Your task to perform on an android device: What's on my calendar tomorrow? Image 0: 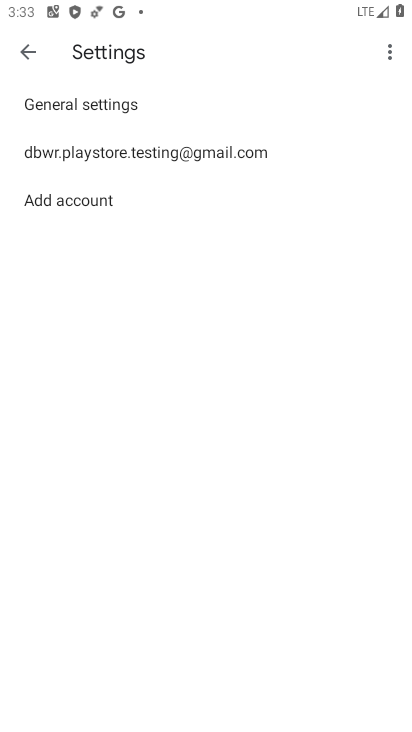
Step 0: press home button
Your task to perform on an android device: What's on my calendar tomorrow? Image 1: 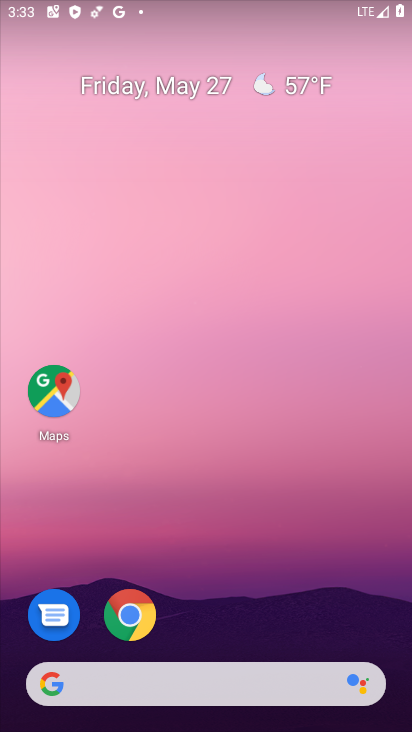
Step 1: drag from (217, 641) to (226, 395)
Your task to perform on an android device: What's on my calendar tomorrow? Image 2: 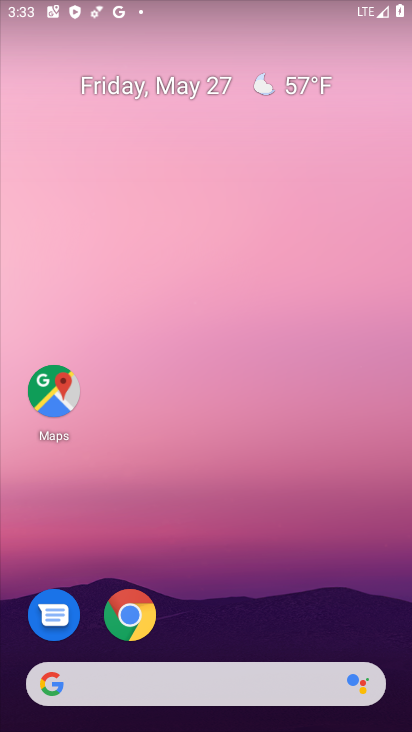
Step 2: drag from (157, 630) to (180, 507)
Your task to perform on an android device: What's on my calendar tomorrow? Image 3: 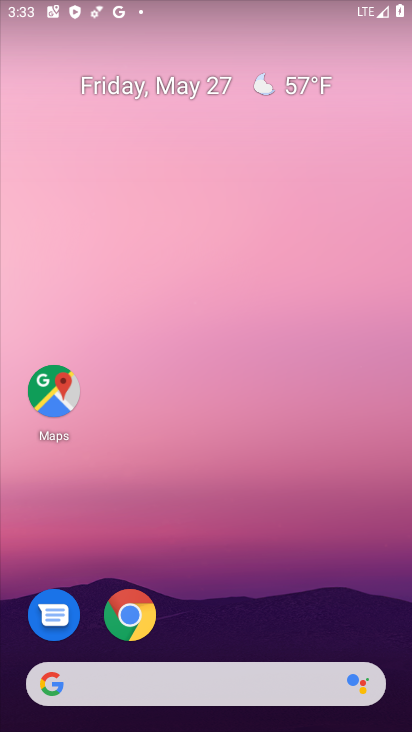
Step 3: drag from (196, 653) to (204, 145)
Your task to perform on an android device: What's on my calendar tomorrow? Image 4: 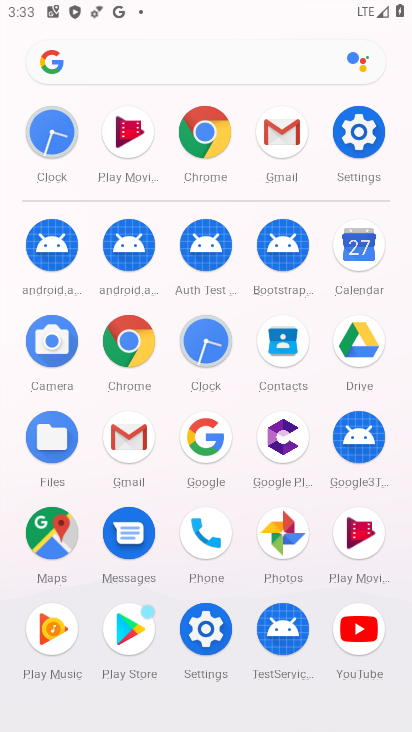
Step 4: click (348, 255)
Your task to perform on an android device: What's on my calendar tomorrow? Image 5: 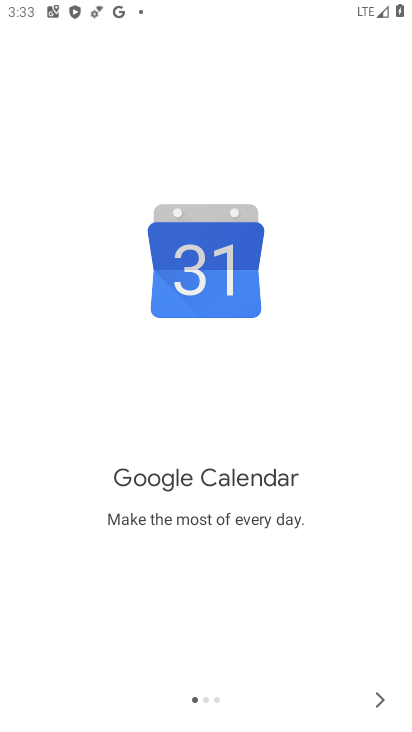
Step 5: click (385, 698)
Your task to perform on an android device: What's on my calendar tomorrow? Image 6: 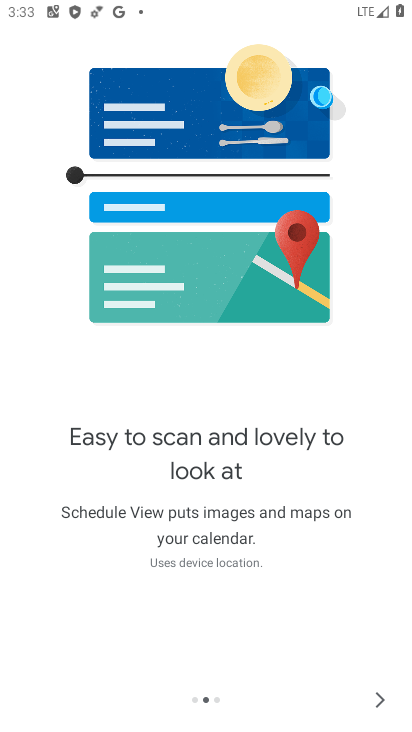
Step 6: click (381, 696)
Your task to perform on an android device: What's on my calendar tomorrow? Image 7: 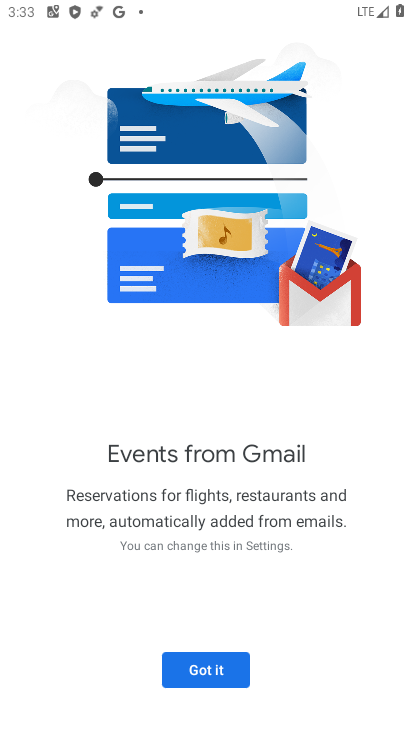
Step 7: click (229, 671)
Your task to perform on an android device: What's on my calendar tomorrow? Image 8: 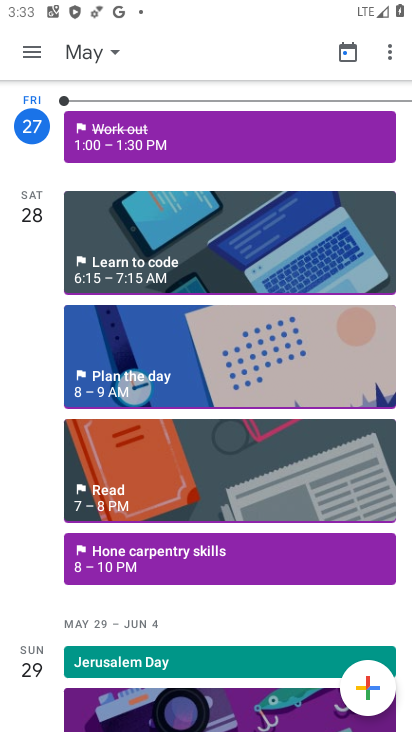
Step 8: task complete